Your task to perform on an android device: Add duracell triple a to the cart on amazon, then select checkout. Image 0: 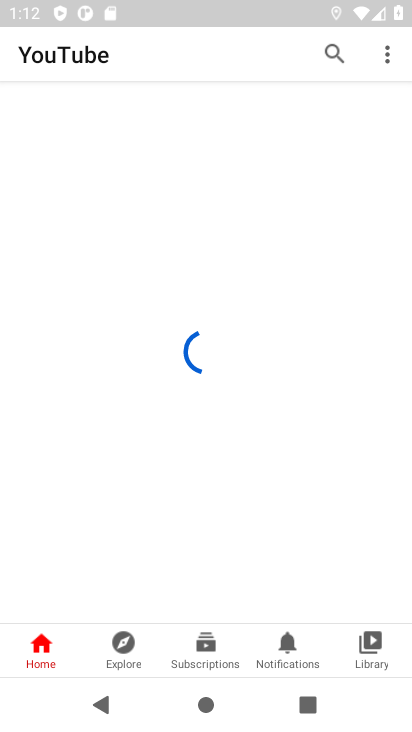
Step 0: press home button
Your task to perform on an android device: Add duracell triple a to the cart on amazon, then select checkout. Image 1: 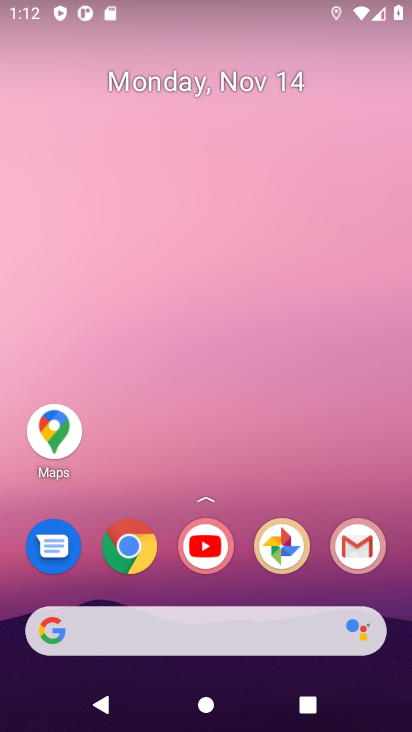
Step 1: drag from (194, 522) to (267, 6)
Your task to perform on an android device: Add duracell triple a to the cart on amazon, then select checkout. Image 2: 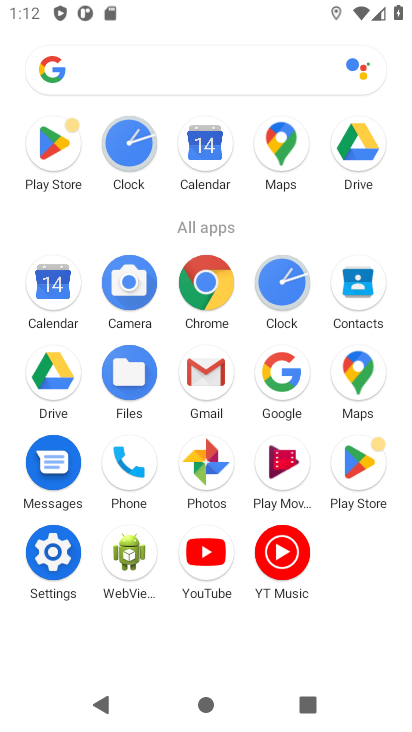
Step 2: click (201, 299)
Your task to perform on an android device: Add duracell triple a to the cart on amazon, then select checkout. Image 3: 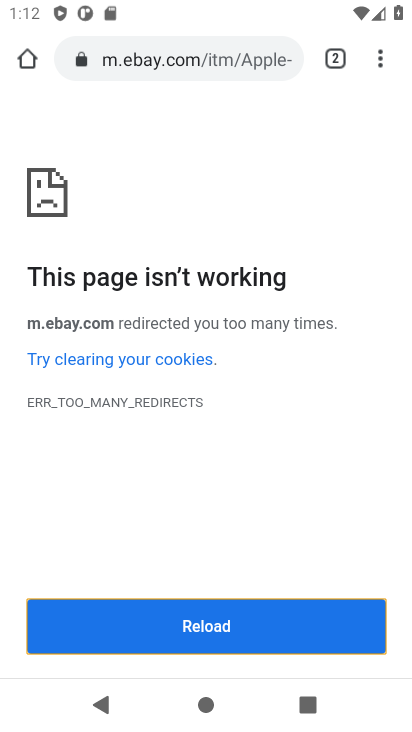
Step 3: click (220, 50)
Your task to perform on an android device: Add duracell triple a to the cart on amazon, then select checkout. Image 4: 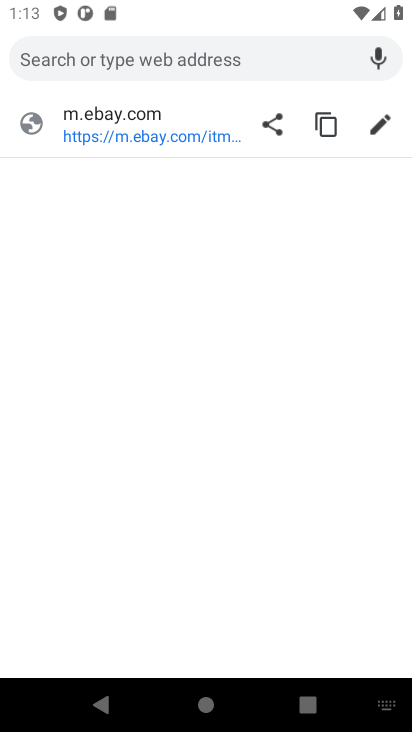
Step 4: press enter
Your task to perform on an android device: Add duracell triple a to the cart on amazon, then select checkout. Image 5: 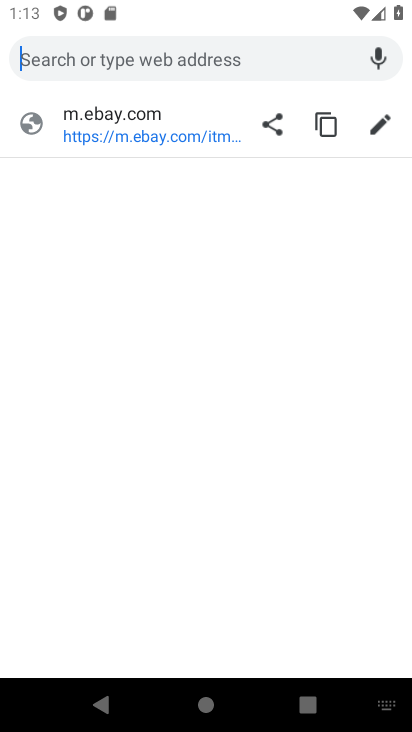
Step 5: type "amazon"
Your task to perform on an android device: Add duracell triple a to the cart on amazon, then select checkout. Image 6: 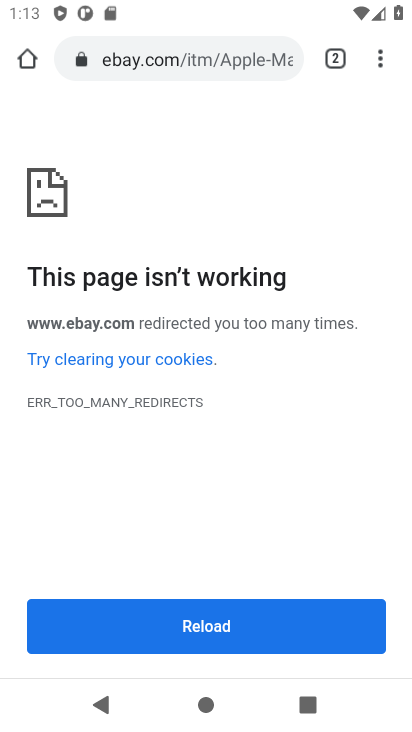
Step 6: click (200, 628)
Your task to perform on an android device: Add duracell triple a to the cart on amazon, then select checkout. Image 7: 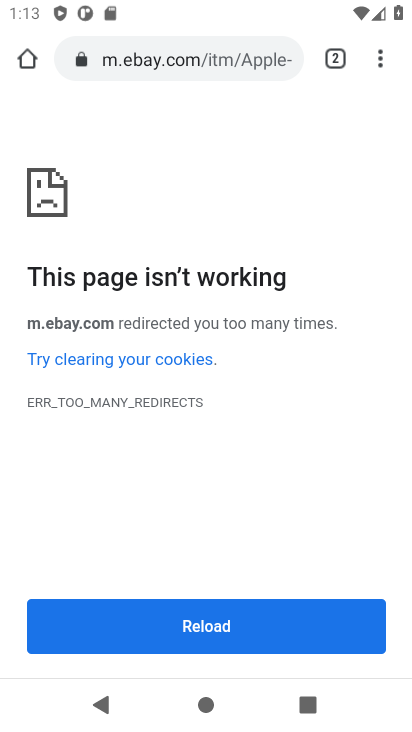
Step 7: click (200, 626)
Your task to perform on an android device: Add duracell triple a to the cart on amazon, then select checkout. Image 8: 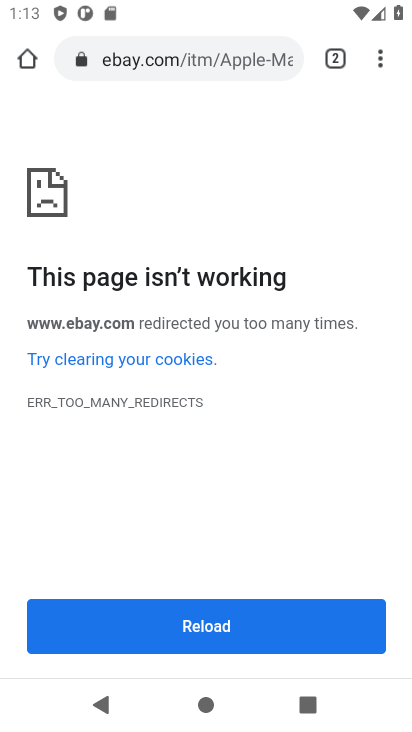
Step 8: click (128, 65)
Your task to perform on an android device: Add duracell triple a to the cart on amazon, then select checkout. Image 9: 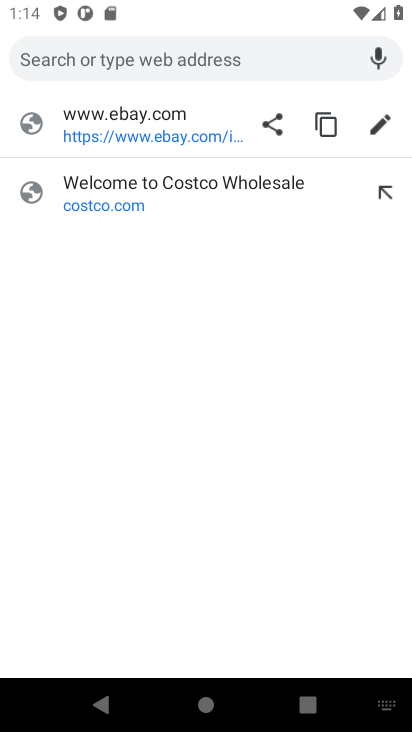
Step 9: type "amazon"
Your task to perform on an android device: Add duracell triple a to the cart on amazon, then select checkout. Image 10: 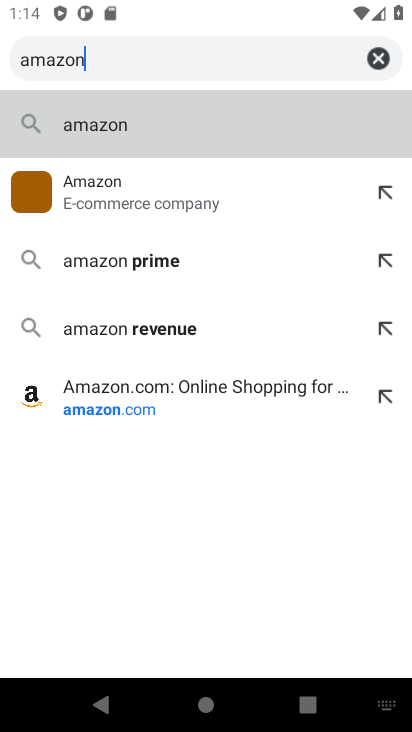
Step 10: press enter
Your task to perform on an android device: Add duracell triple a to the cart on amazon, then select checkout. Image 11: 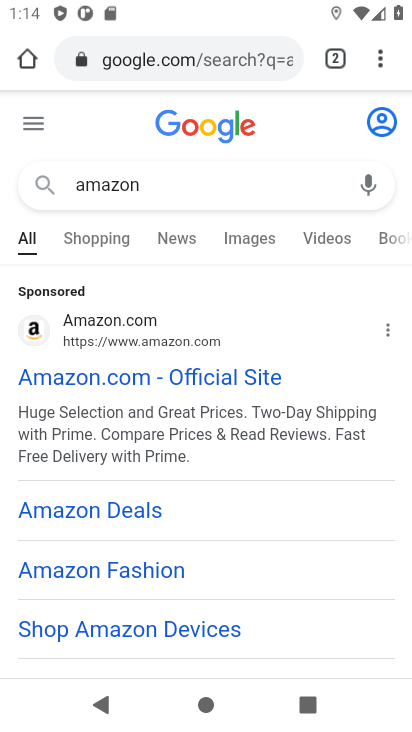
Step 11: click (153, 330)
Your task to perform on an android device: Add duracell triple a to the cart on amazon, then select checkout. Image 12: 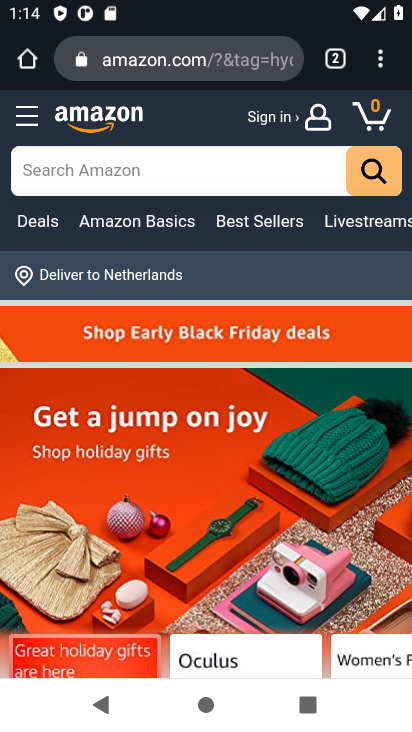
Step 12: click (137, 161)
Your task to perform on an android device: Add duracell triple a to the cart on amazon, then select checkout. Image 13: 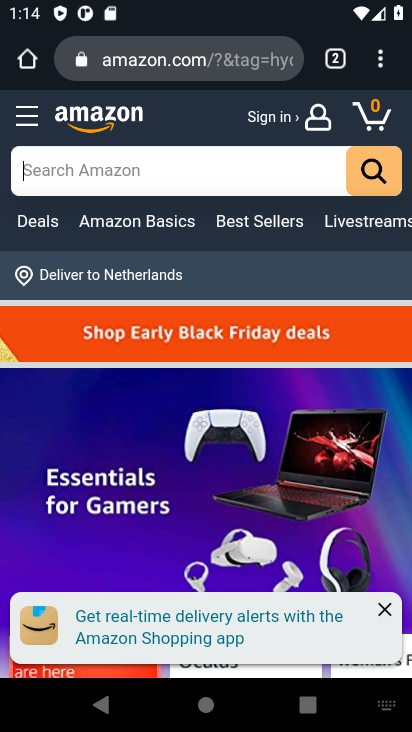
Step 13: type "duracell triple "
Your task to perform on an android device: Add duracell triple a to the cart on amazon, then select checkout. Image 14: 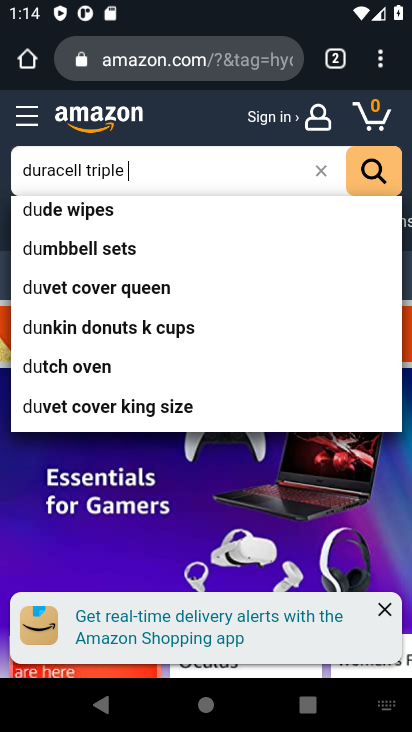
Step 14: press enter
Your task to perform on an android device: Add duracell triple a to the cart on amazon, then select checkout. Image 15: 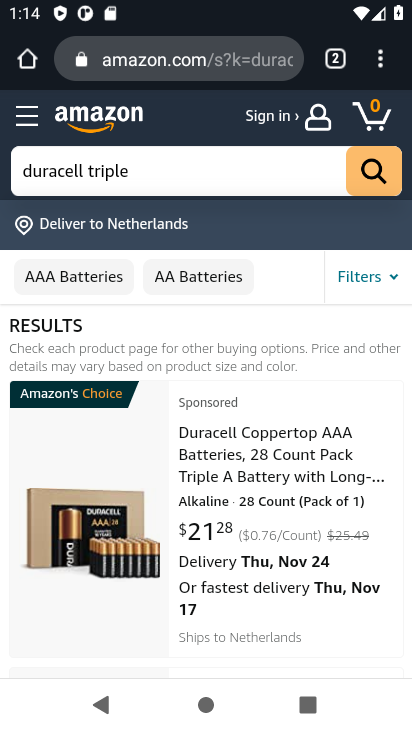
Step 15: click (286, 450)
Your task to perform on an android device: Add duracell triple a to the cart on amazon, then select checkout. Image 16: 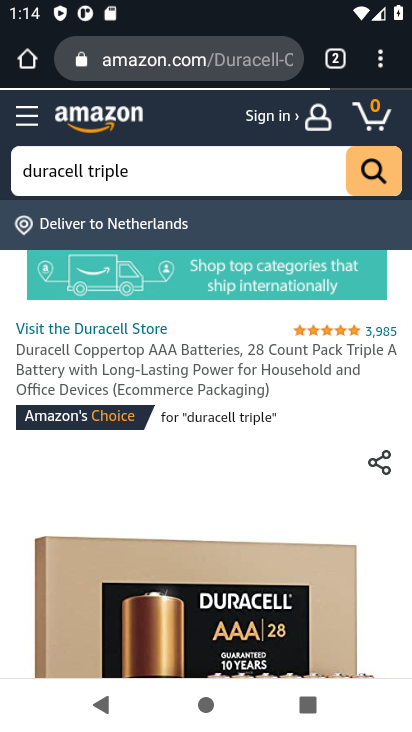
Step 16: drag from (195, 591) to (167, 215)
Your task to perform on an android device: Add duracell triple a to the cart on amazon, then select checkout. Image 17: 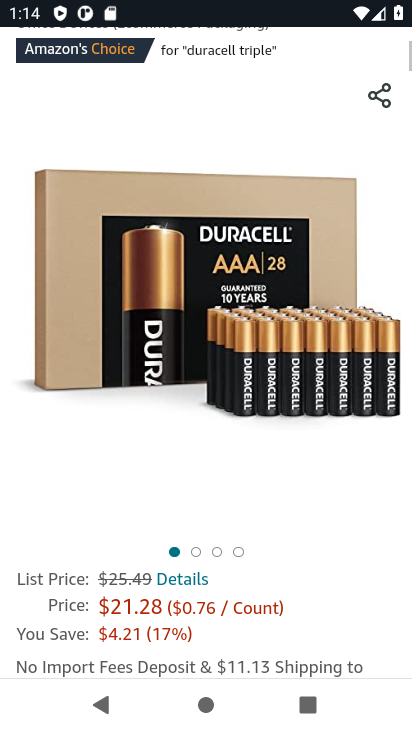
Step 17: drag from (280, 578) to (253, 273)
Your task to perform on an android device: Add duracell triple a to the cart on amazon, then select checkout. Image 18: 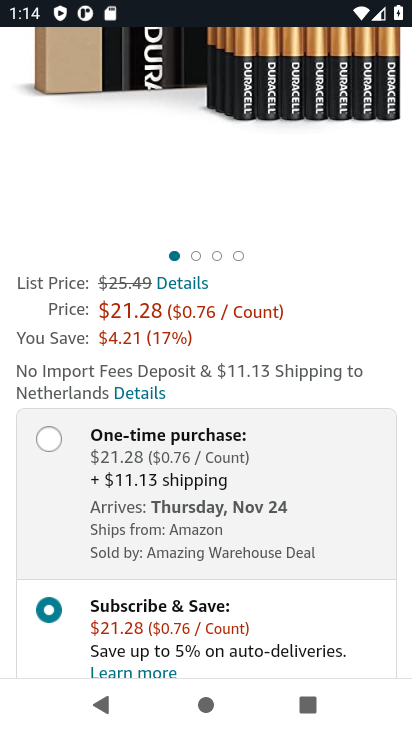
Step 18: drag from (299, 536) to (288, 193)
Your task to perform on an android device: Add duracell triple a to the cart on amazon, then select checkout. Image 19: 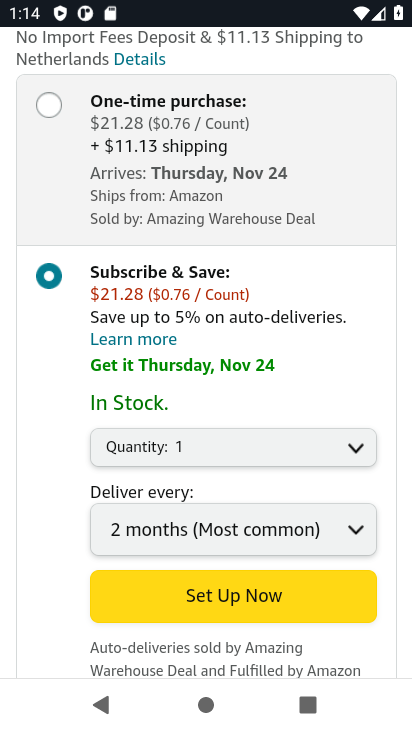
Step 19: drag from (256, 471) to (231, 137)
Your task to perform on an android device: Add duracell triple a to the cart on amazon, then select checkout. Image 20: 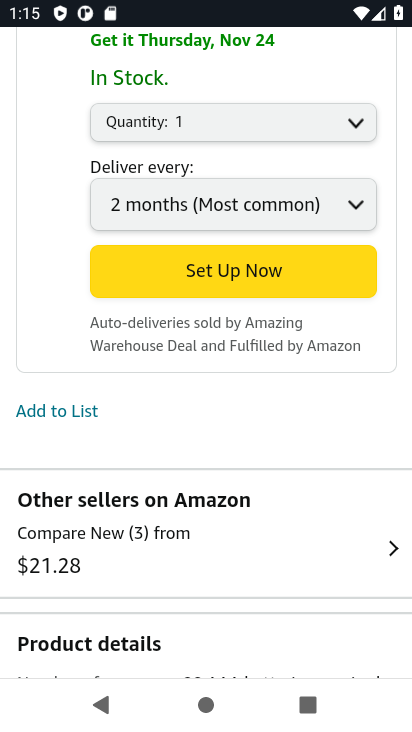
Step 20: drag from (241, 437) to (247, 127)
Your task to perform on an android device: Add duracell triple a to the cart on amazon, then select checkout. Image 21: 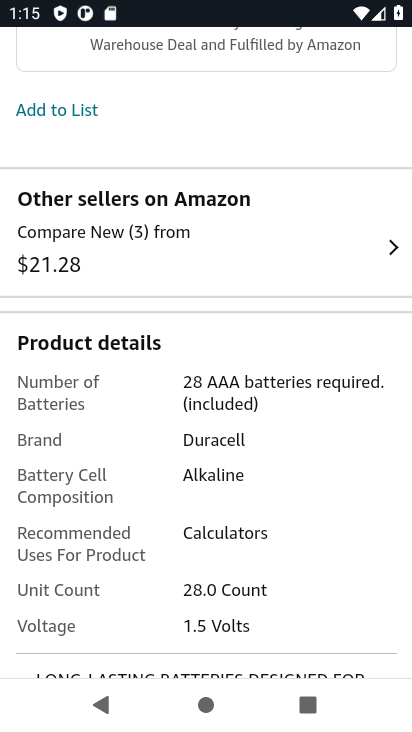
Step 21: drag from (297, 520) to (260, 114)
Your task to perform on an android device: Add duracell triple a to the cart on amazon, then select checkout. Image 22: 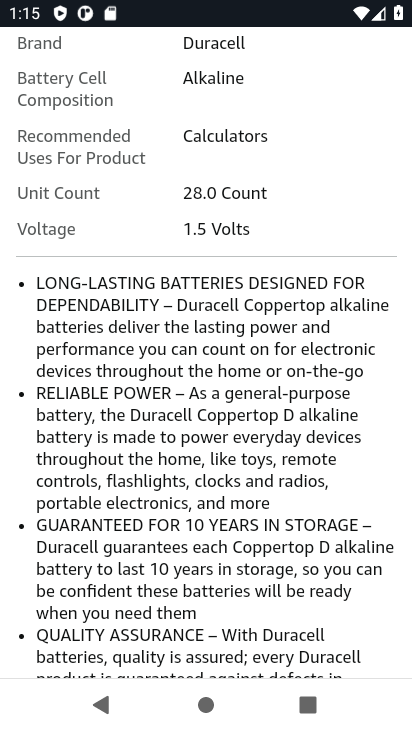
Step 22: drag from (255, 445) to (249, 94)
Your task to perform on an android device: Add duracell triple a to the cart on amazon, then select checkout. Image 23: 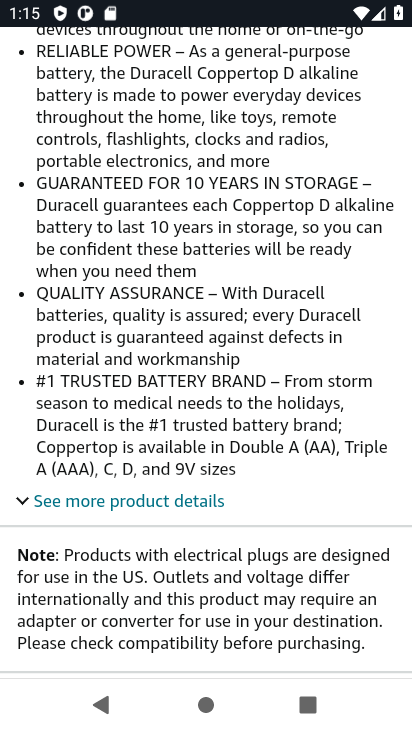
Step 23: drag from (243, 386) to (253, 101)
Your task to perform on an android device: Add duracell triple a to the cart on amazon, then select checkout. Image 24: 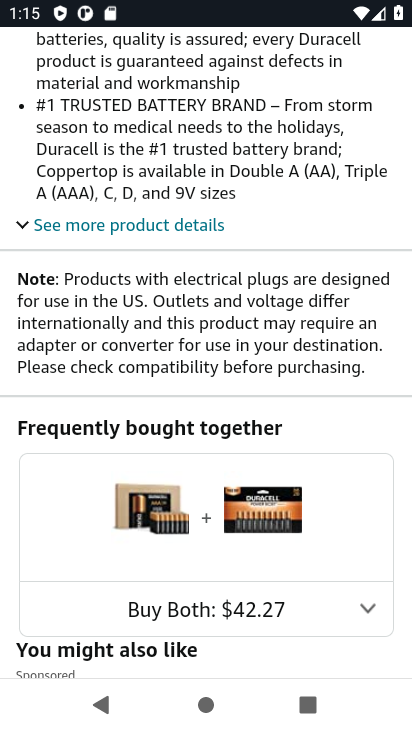
Step 24: drag from (202, 410) to (215, 83)
Your task to perform on an android device: Add duracell triple a to the cart on amazon, then select checkout. Image 25: 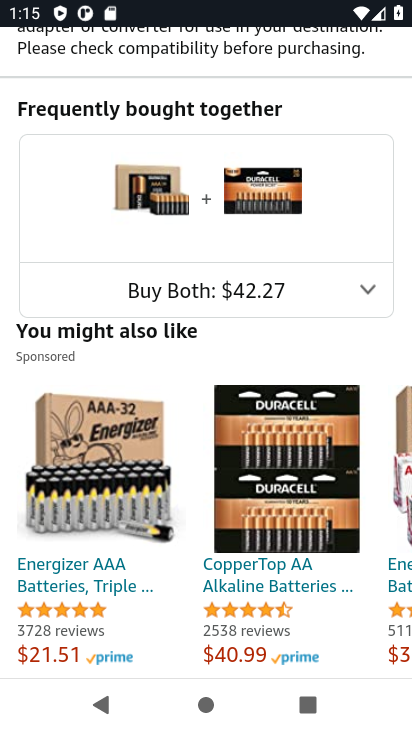
Step 25: drag from (285, 474) to (300, 80)
Your task to perform on an android device: Add duracell triple a to the cart on amazon, then select checkout. Image 26: 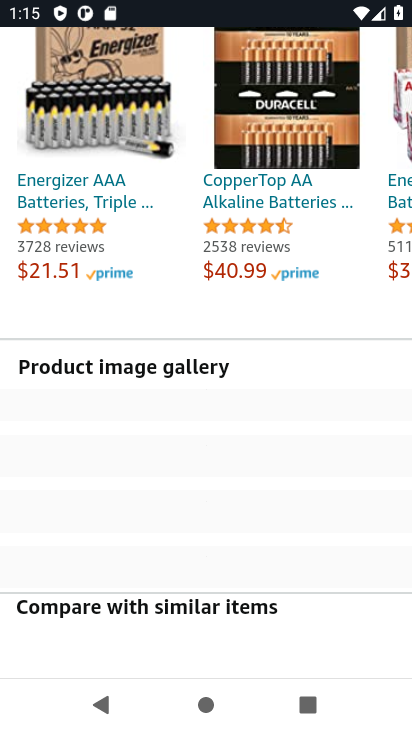
Step 26: drag from (300, 78) to (279, 508)
Your task to perform on an android device: Add duracell triple a to the cart on amazon, then select checkout. Image 27: 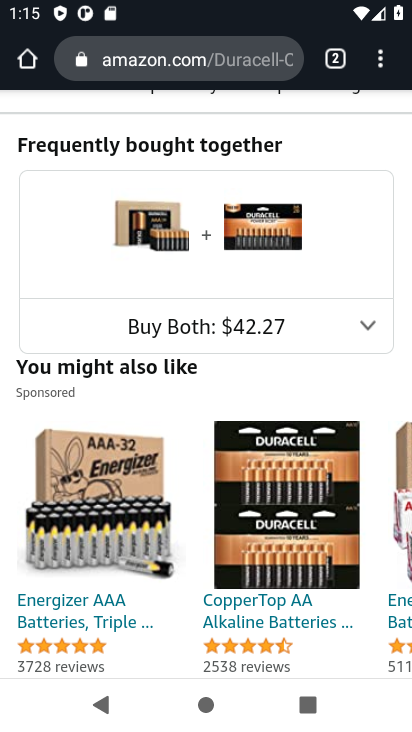
Step 27: drag from (325, 162) to (314, 557)
Your task to perform on an android device: Add duracell triple a to the cart on amazon, then select checkout. Image 28: 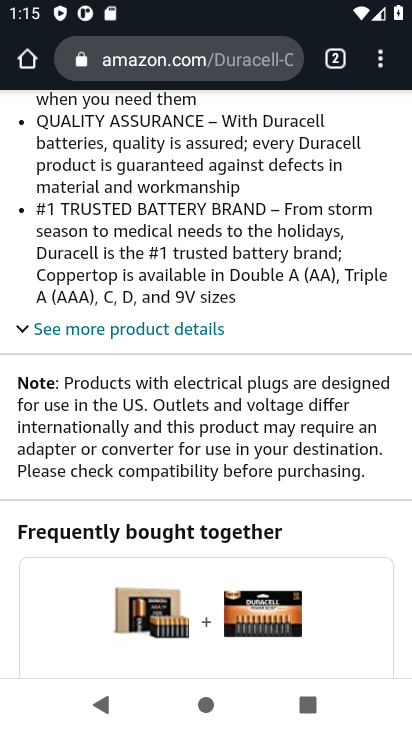
Step 28: drag from (317, 229) to (326, 601)
Your task to perform on an android device: Add duracell triple a to the cart on amazon, then select checkout. Image 29: 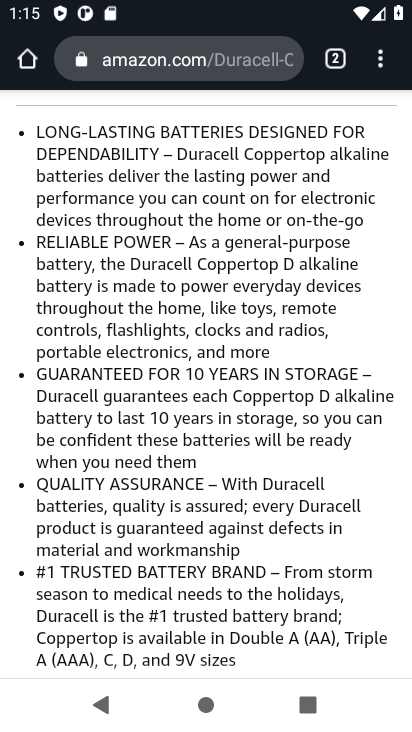
Step 29: drag from (330, 277) to (330, 596)
Your task to perform on an android device: Add duracell triple a to the cart on amazon, then select checkout. Image 30: 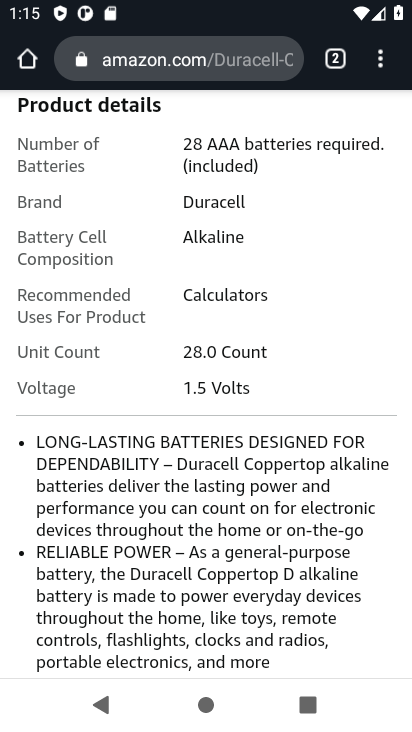
Step 30: drag from (315, 165) to (310, 572)
Your task to perform on an android device: Add duracell triple a to the cart on amazon, then select checkout. Image 31: 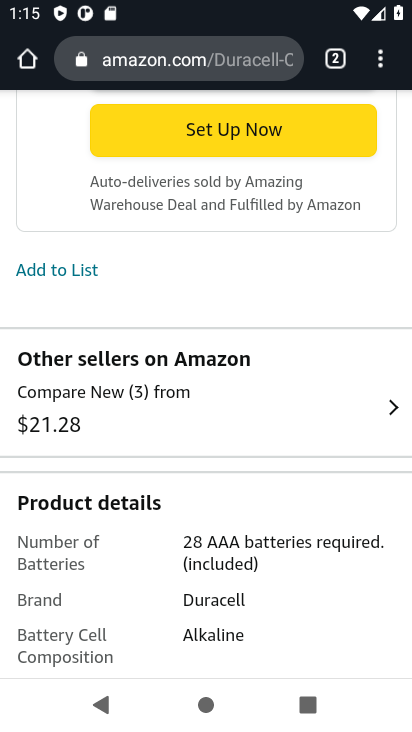
Step 31: drag from (333, 202) to (324, 579)
Your task to perform on an android device: Add duracell triple a to the cart on amazon, then select checkout. Image 32: 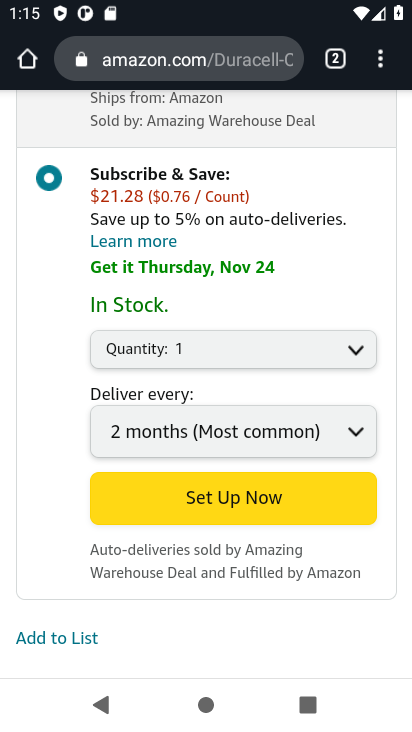
Step 32: drag from (317, 184) to (326, 605)
Your task to perform on an android device: Add duracell triple a to the cart on amazon, then select checkout. Image 33: 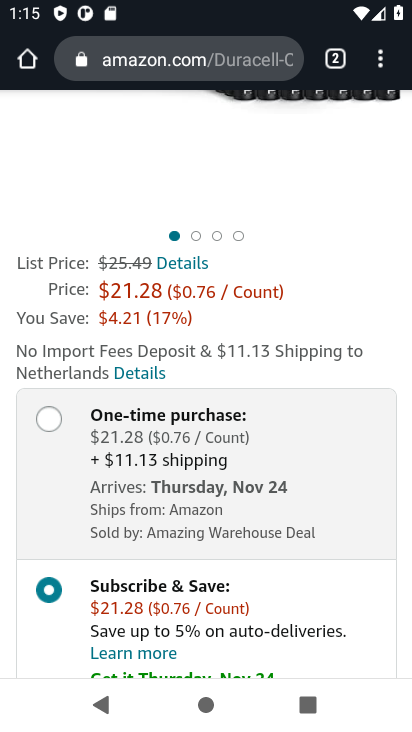
Step 33: drag from (307, 269) to (309, 584)
Your task to perform on an android device: Add duracell triple a to the cart on amazon, then select checkout. Image 34: 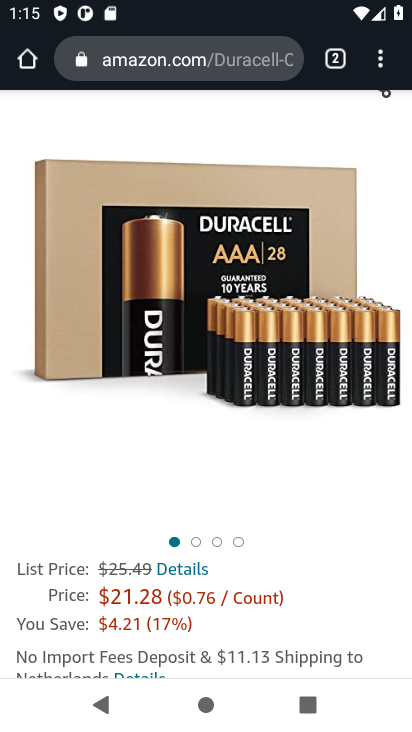
Step 34: drag from (304, 287) to (308, 625)
Your task to perform on an android device: Add duracell triple a to the cart on amazon, then select checkout. Image 35: 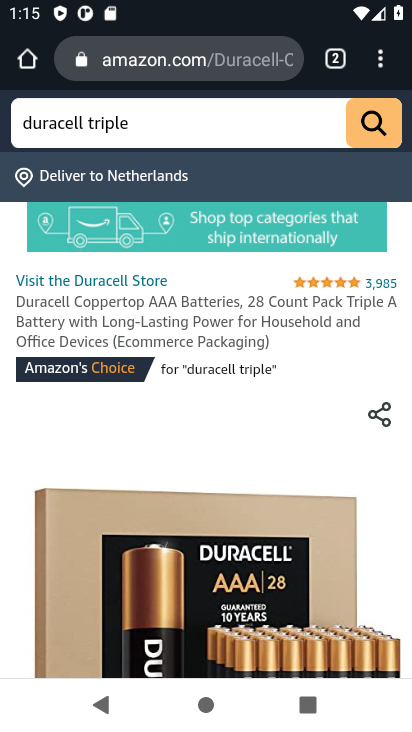
Step 35: drag from (314, 578) to (290, 179)
Your task to perform on an android device: Add duracell triple a to the cart on amazon, then select checkout. Image 36: 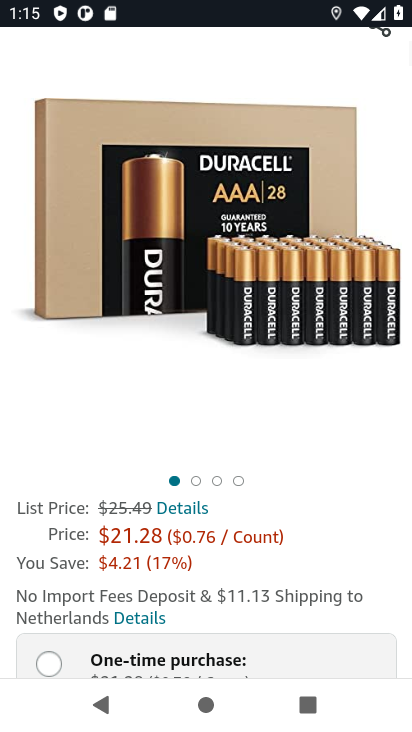
Step 36: drag from (342, 429) to (312, 28)
Your task to perform on an android device: Add duracell triple a to the cart on amazon, then select checkout. Image 37: 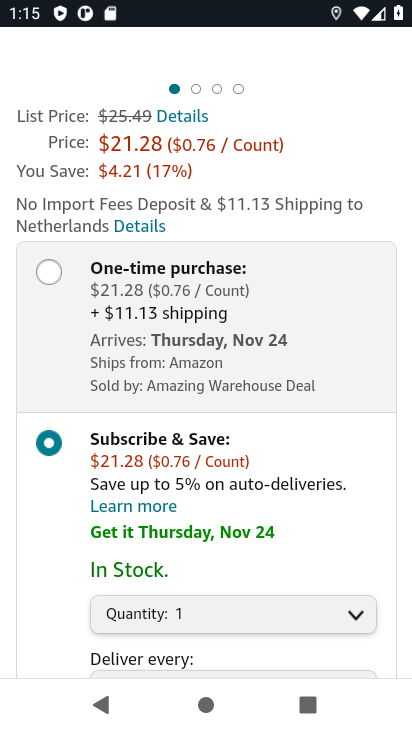
Step 37: drag from (314, 321) to (296, 23)
Your task to perform on an android device: Add duracell triple a to the cart on amazon, then select checkout. Image 38: 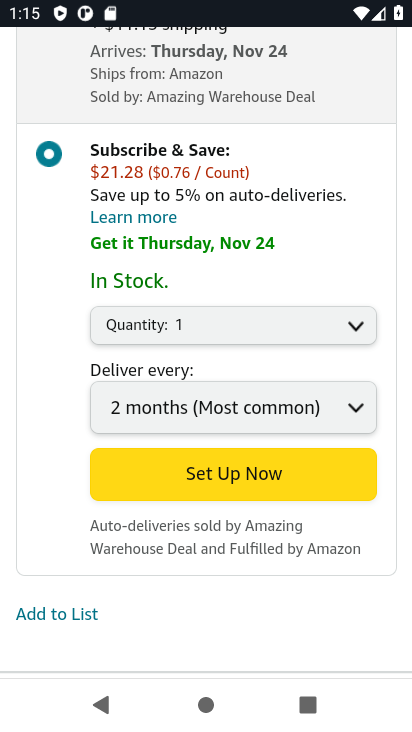
Step 38: click (225, 478)
Your task to perform on an android device: Add duracell triple a to the cart on amazon, then select checkout. Image 39: 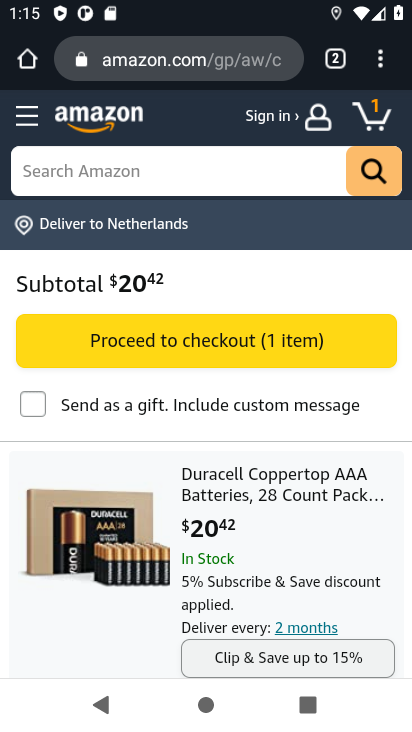
Step 39: click (182, 338)
Your task to perform on an android device: Add duracell triple a to the cart on amazon, then select checkout. Image 40: 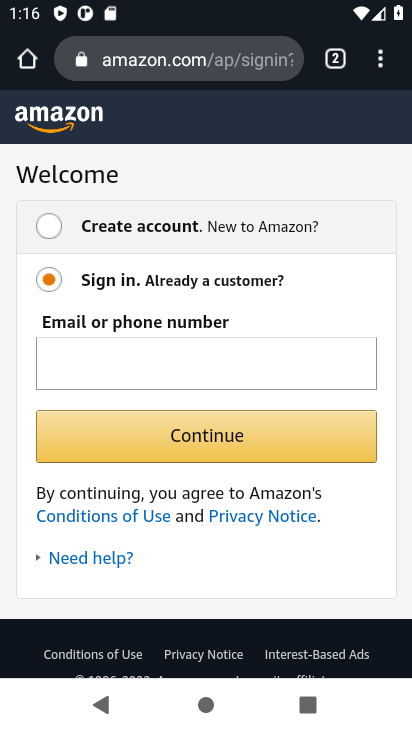
Step 40: task complete